Your task to perform on an android device: change the upload size in google photos Image 0: 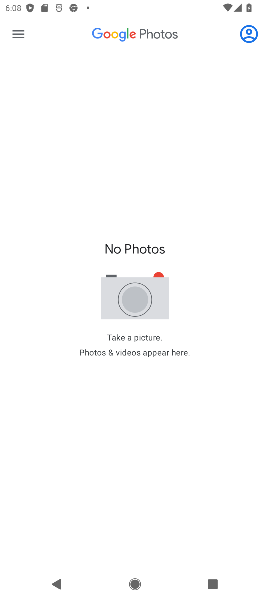
Step 0: press home button
Your task to perform on an android device: change the upload size in google photos Image 1: 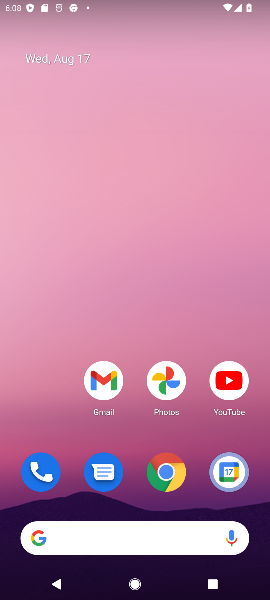
Step 1: click (173, 386)
Your task to perform on an android device: change the upload size in google photos Image 2: 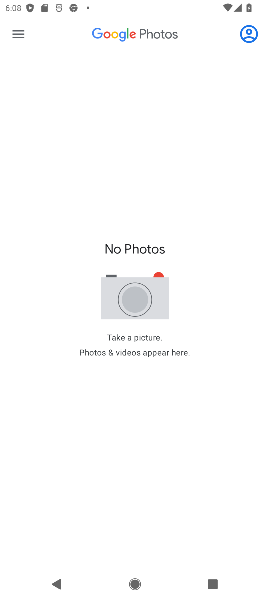
Step 2: click (17, 37)
Your task to perform on an android device: change the upload size in google photos Image 3: 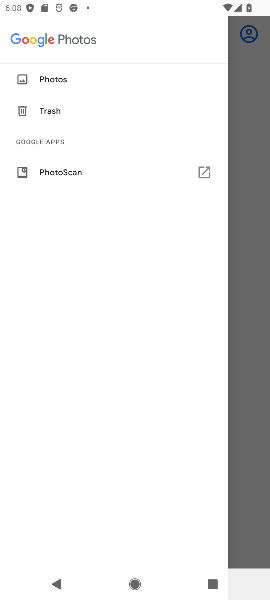
Step 3: click (262, 146)
Your task to perform on an android device: change the upload size in google photos Image 4: 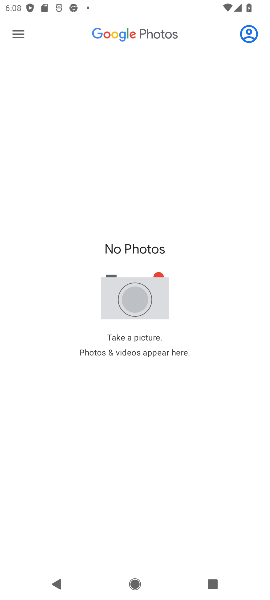
Step 4: click (246, 32)
Your task to perform on an android device: change the upload size in google photos Image 5: 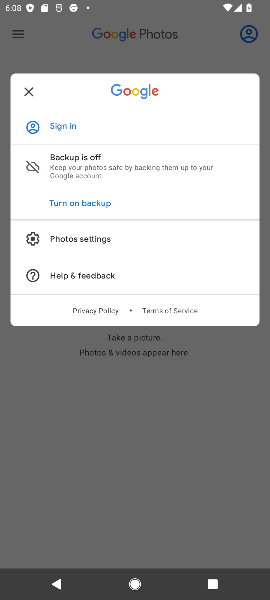
Step 5: click (74, 124)
Your task to perform on an android device: change the upload size in google photos Image 6: 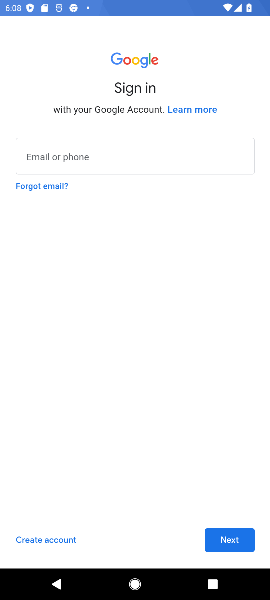
Step 6: task complete